Your task to perform on an android device: Open Wikipedia Image 0: 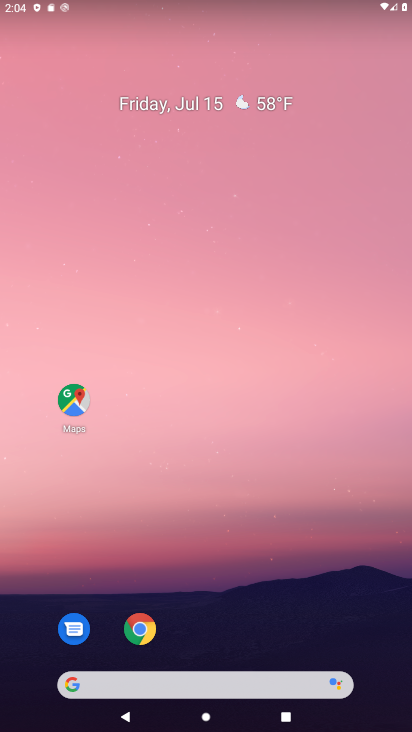
Step 0: click (141, 638)
Your task to perform on an android device: Open Wikipedia Image 1: 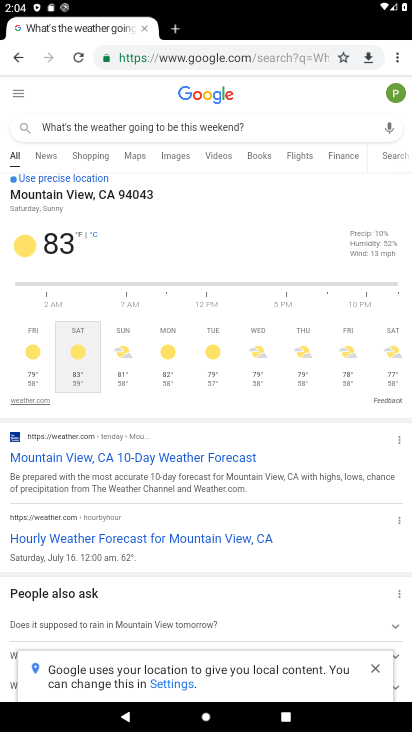
Step 1: click (174, 29)
Your task to perform on an android device: Open Wikipedia Image 2: 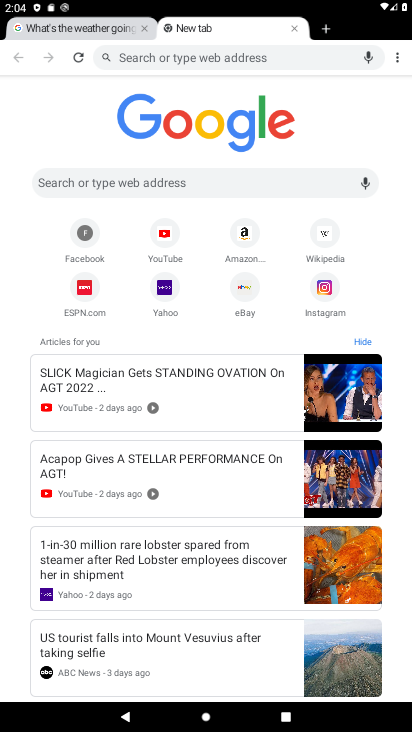
Step 2: click (330, 228)
Your task to perform on an android device: Open Wikipedia Image 3: 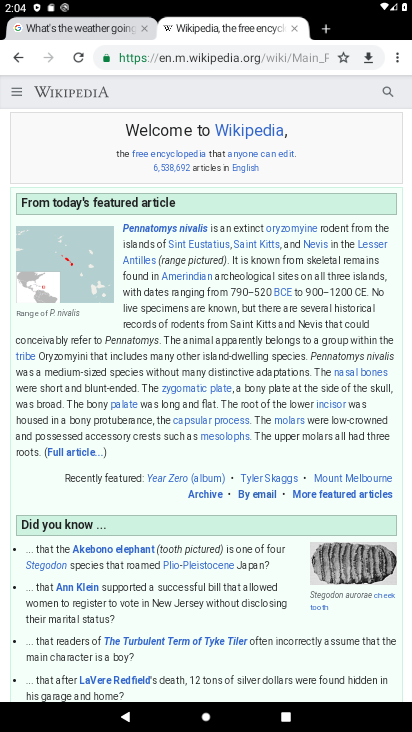
Step 3: task complete